Your task to perform on an android device: Go to location settings Image 0: 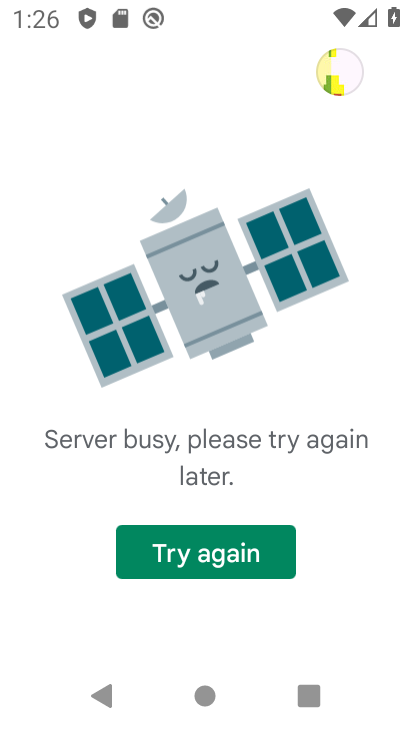
Step 0: press home button
Your task to perform on an android device: Go to location settings Image 1: 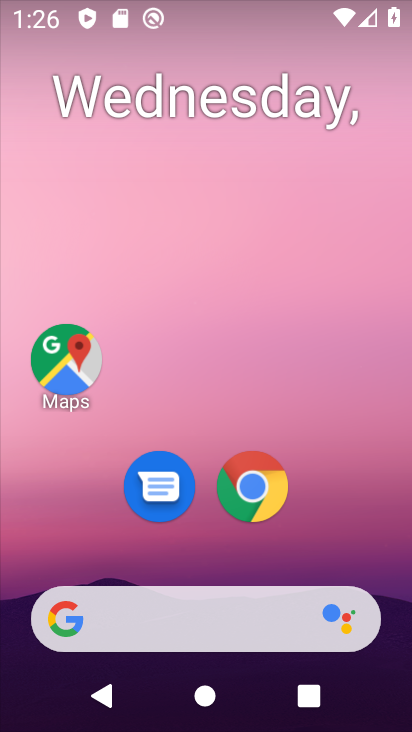
Step 1: drag from (249, 706) to (195, 94)
Your task to perform on an android device: Go to location settings Image 2: 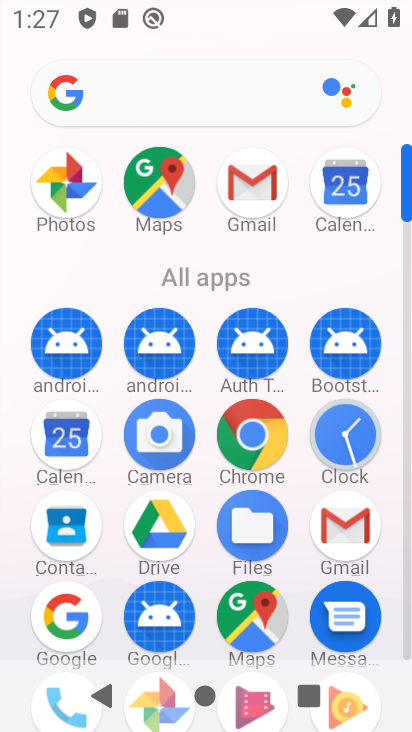
Step 2: drag from (311, 555) to (296, 70)
Your task to perform on an android device: Go to location settings Image 3: 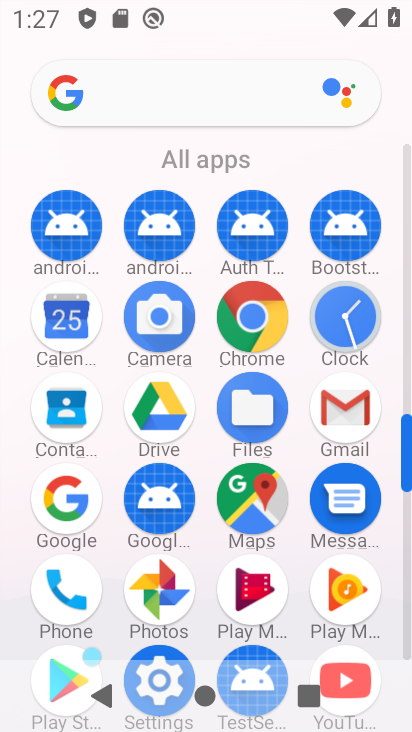
Step 3: click (160, 643)
Your task to perform on an android device: Go to location settings Image 4: 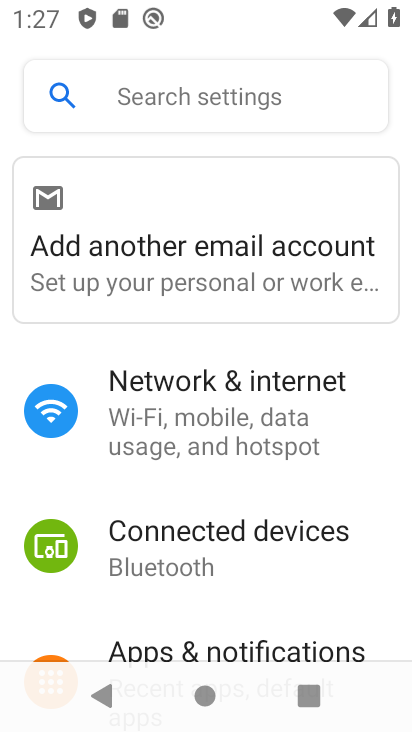
Step 4: drag from (291, 552) to (376, 20)
Your task to perform on an android device: Go to location settings Image 5: 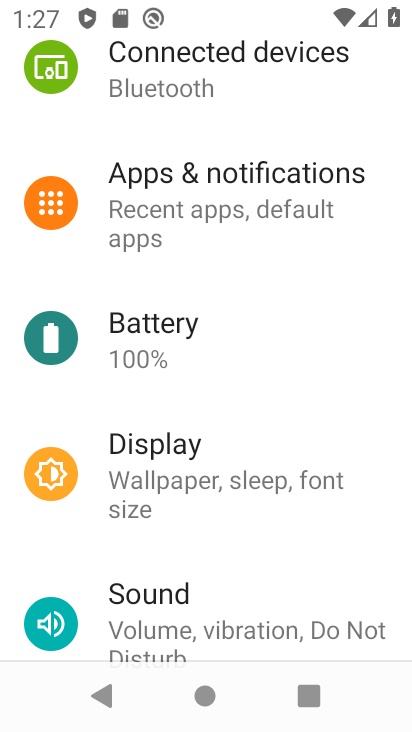
Step 5: drag from (171, 576) to (315, 21)
Your task to perform on an android device: Go to location settings Image 6: 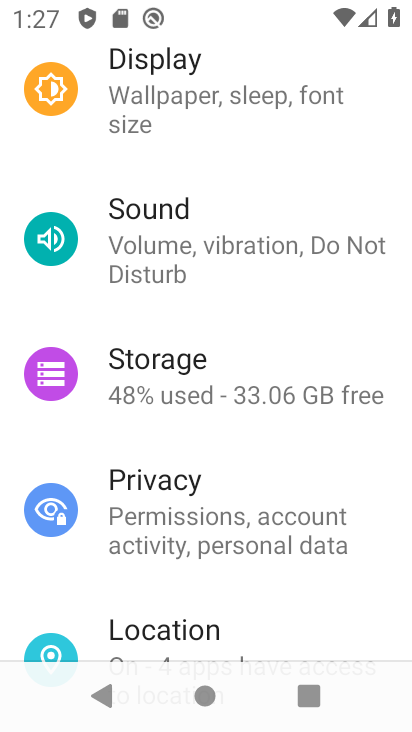
Step 6: click (182, 634)
Your task to perform on an android device: Go to location settings Image 7: 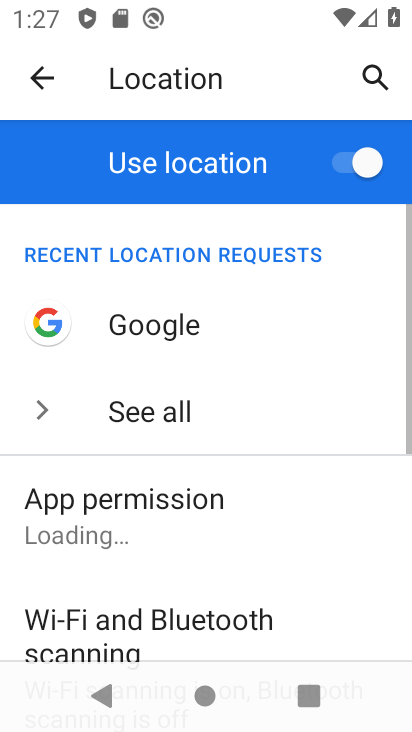
Step 7: task complete